Your task to perform on an android device: toggle pop-ups in chrome Image 0: 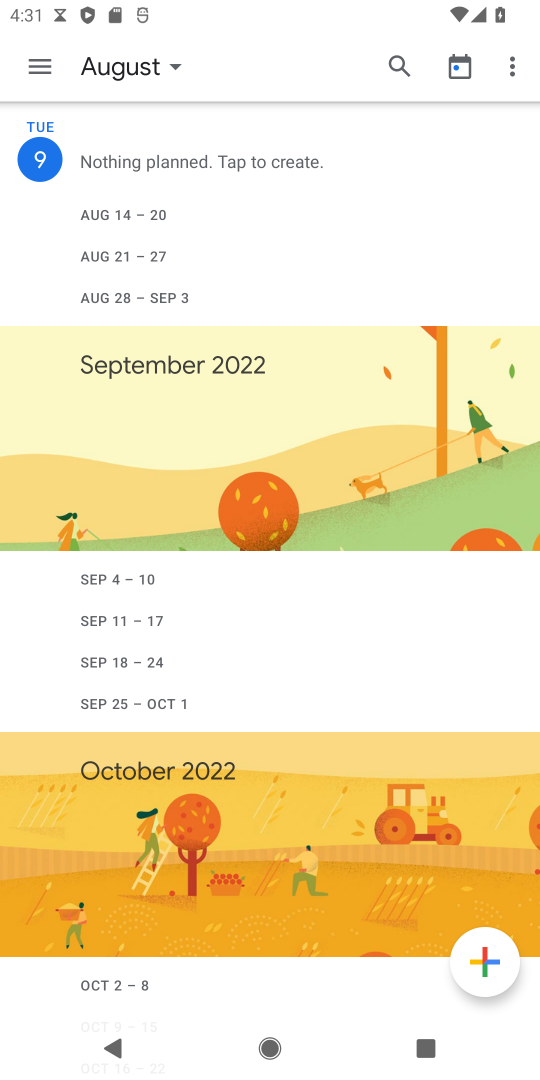
Step 0: press back button
Your task to perform on an android device: toggle pop-ups in chrome Image 1: 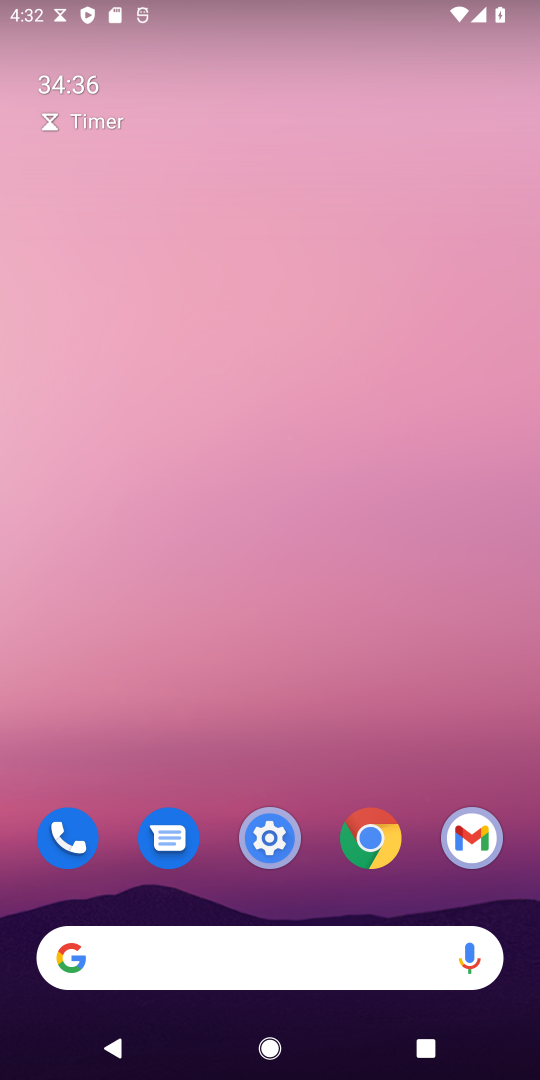
Step 1: click (366, 853)
Your task to perform on an android device: toggle pop-ups in chrome Image 2: 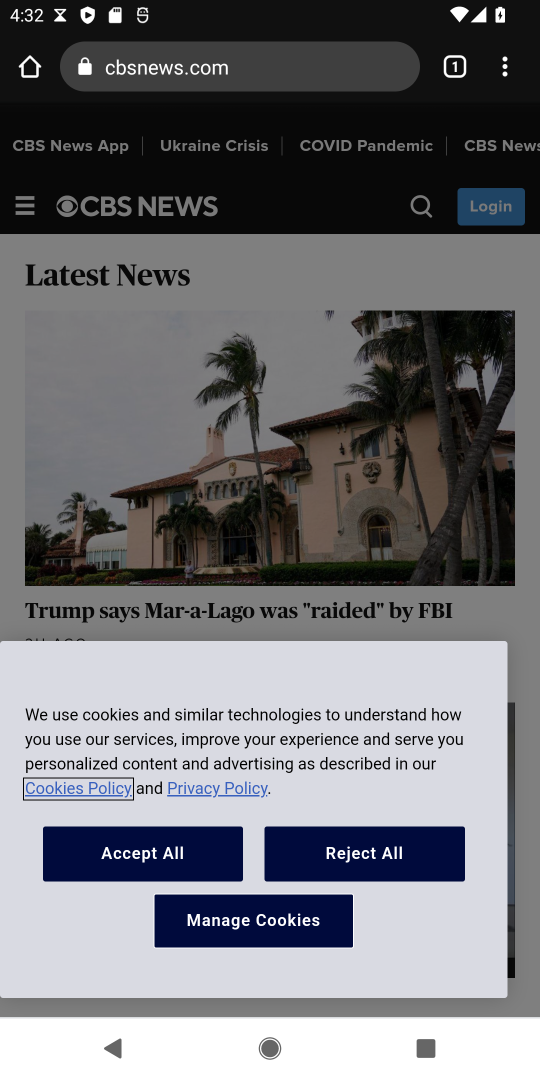
Step 2: click (508, 78)
Your task to perform on an android device: toggle pop-ups in chrome Image 3: 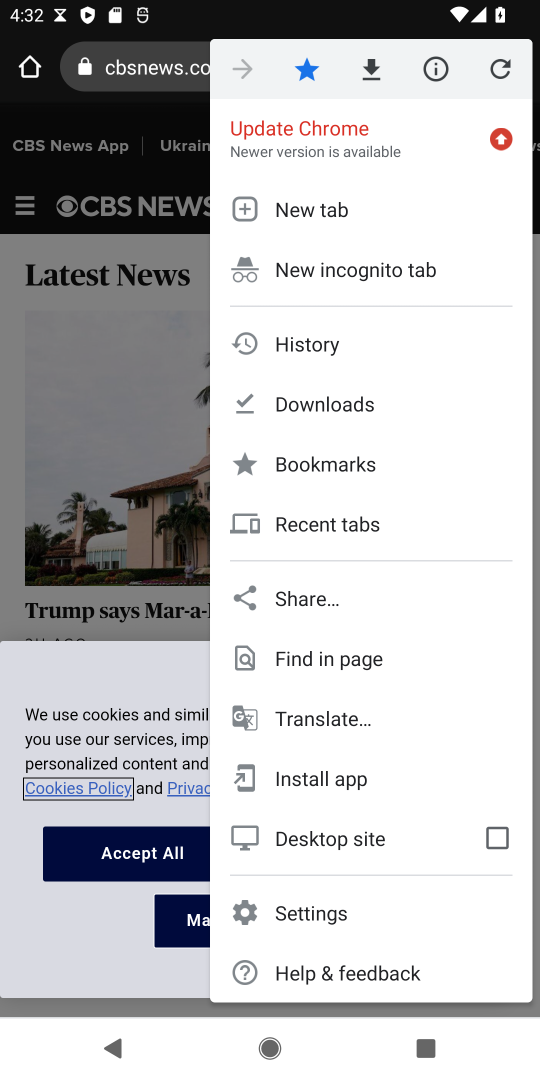
Step 3: click (331, 914)
Your task to perform on an android device: toggle pop-ups in chrome Image 4: 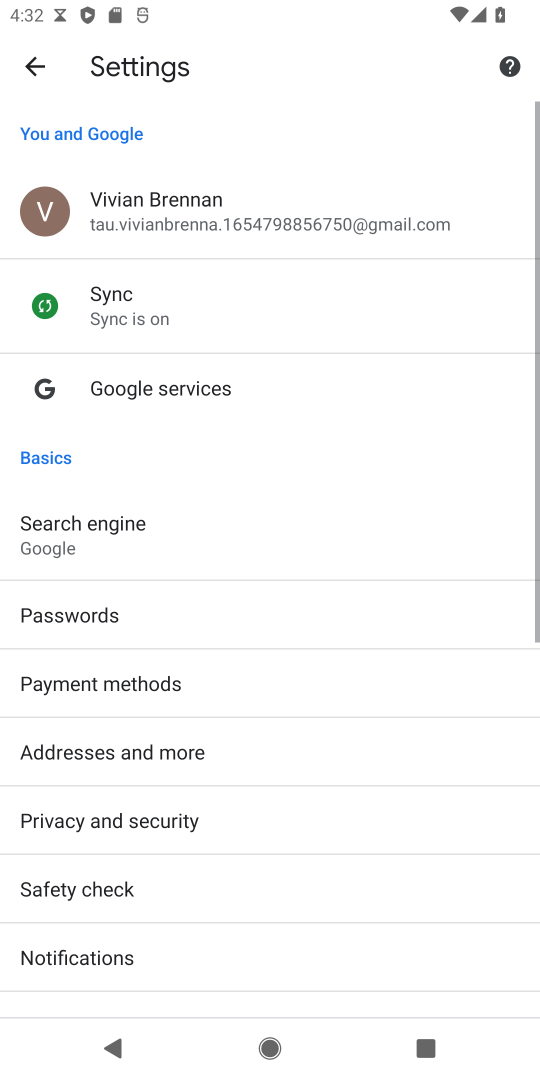
Step 4: drag from (268, 922) to (185, 320)
Your task to perform on an android device: toggle pop-ups in chrome Image 5: 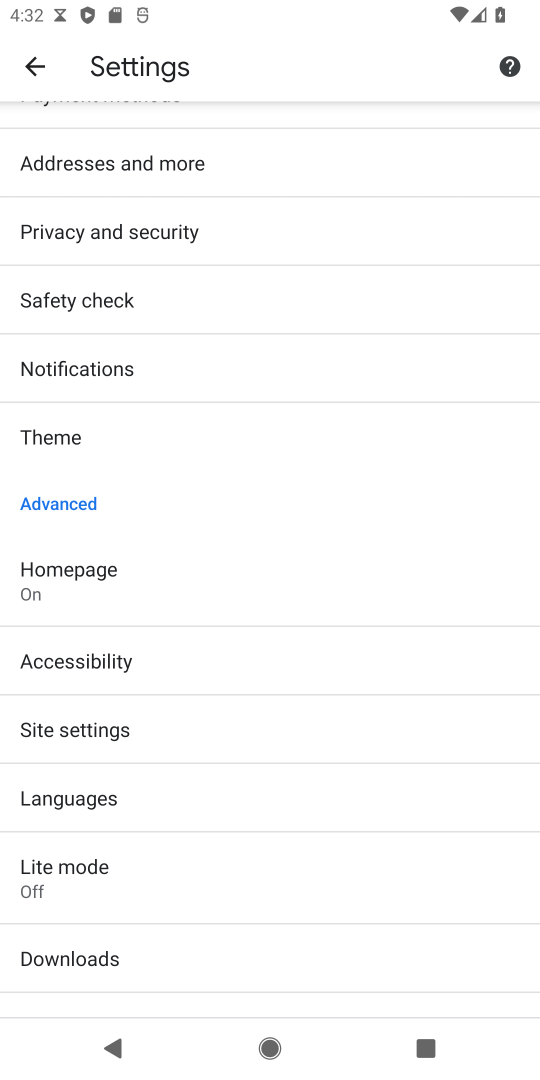
Step 5: click (203, 743)
Your task to perform on an android device: toggle pop-ups in chrome Image 6: 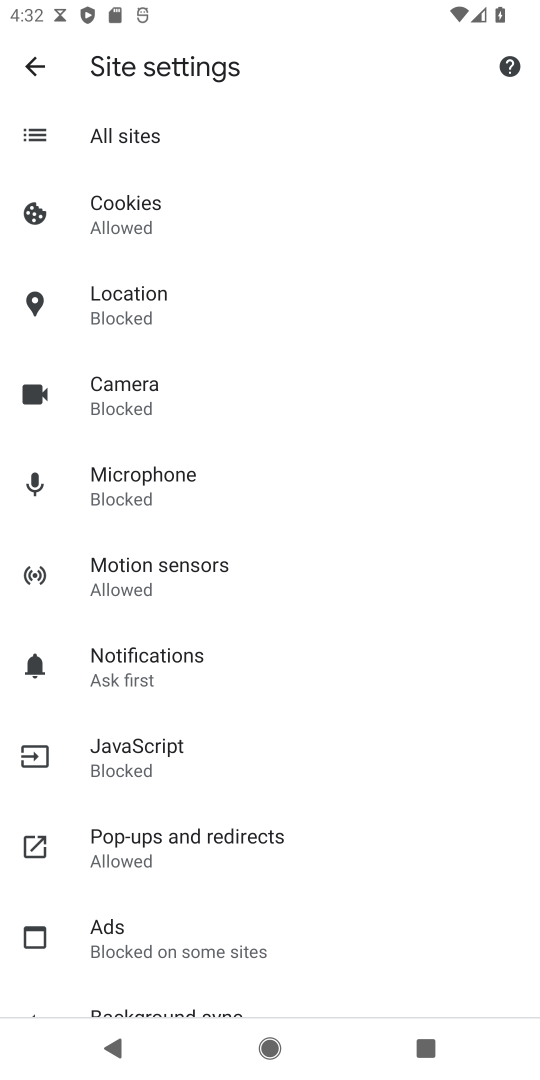
Step 6: click (287, 820)
Your task to perform on an android device: toggle pop-ups in chrome Image 7: 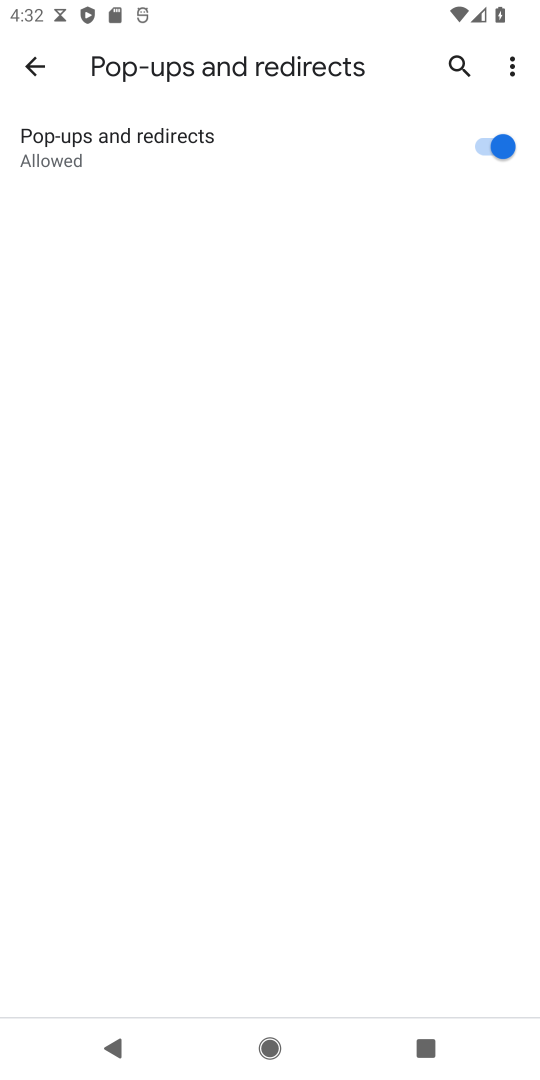
Step 7: click (487, 160)
Your task to perform on an android device: toggle pop-ups in chrome Image 8: 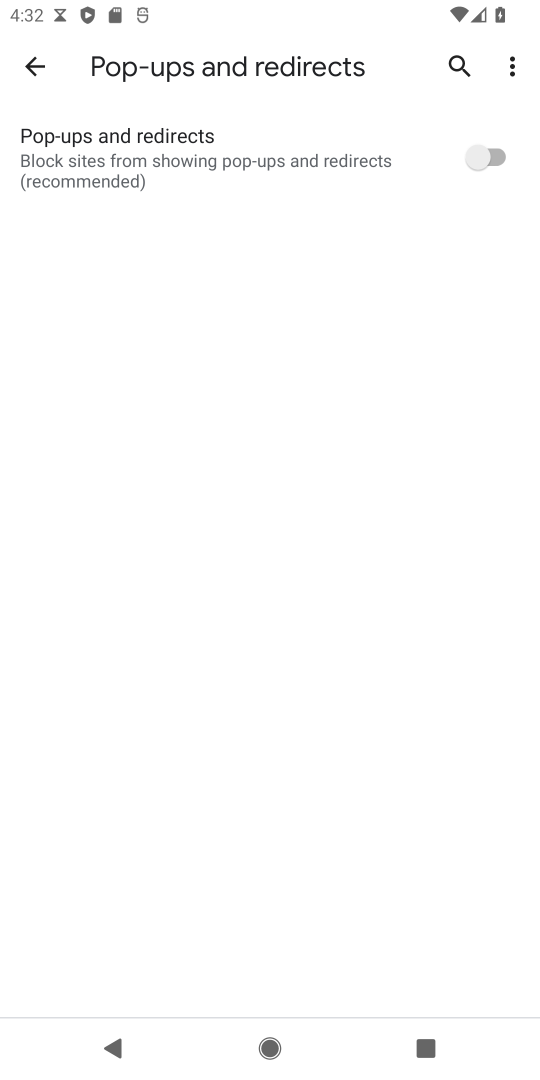
Step 8: task complete